Your task to perform on an android device: turn off javascript in the chrome app Image 0: 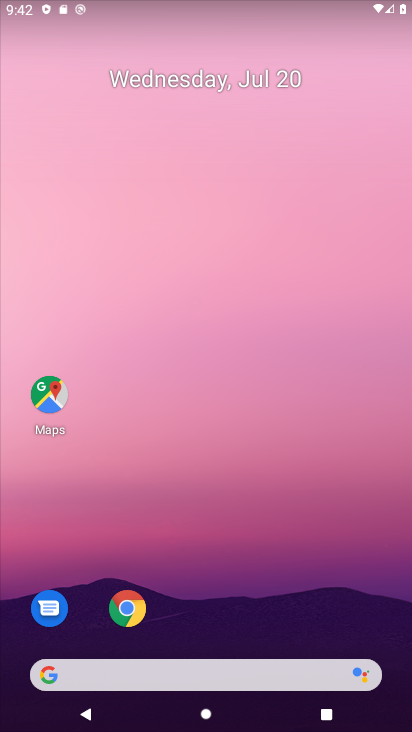
Step 0: click (208, 211)
Your task to perform on an android device: turn off javascript in the chrome app Image 1: 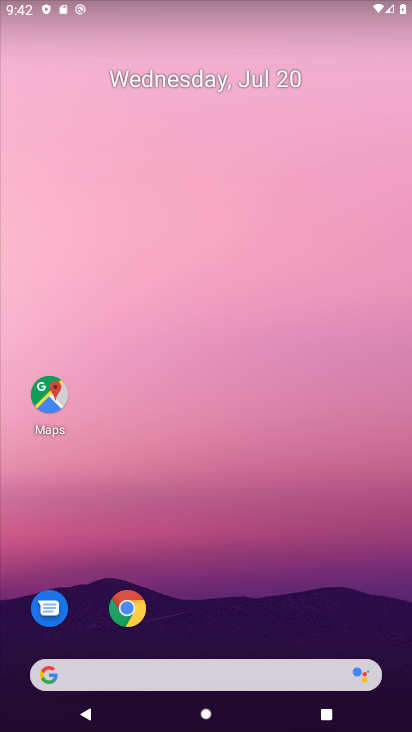
Step 1: drag from (267, 540) to (282, 146)
Your task to perform on an android device: turn off javascript in the chrome app Image 2: 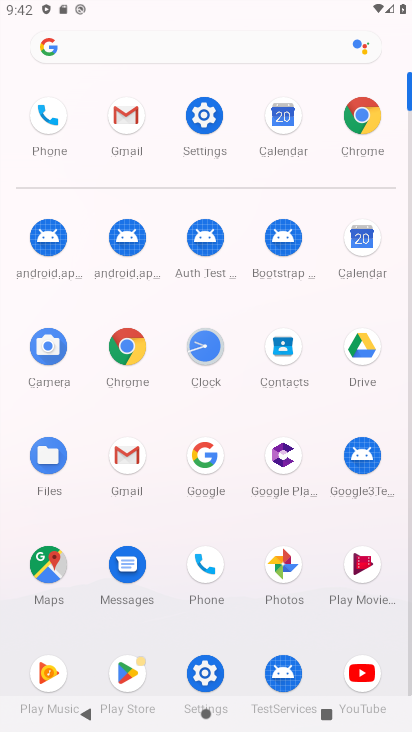
Step 2: click (359, 125)
Your task to perform on an android device: turn off javascript in the chrome app Image 3: 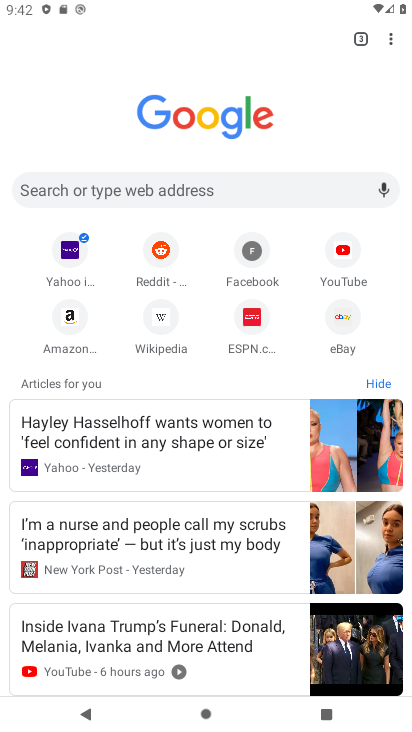
Step 3: drag from (384, 42) to (244, 325)
Your task to perform on an android device: turn off javascript in the chrome app Image 4: 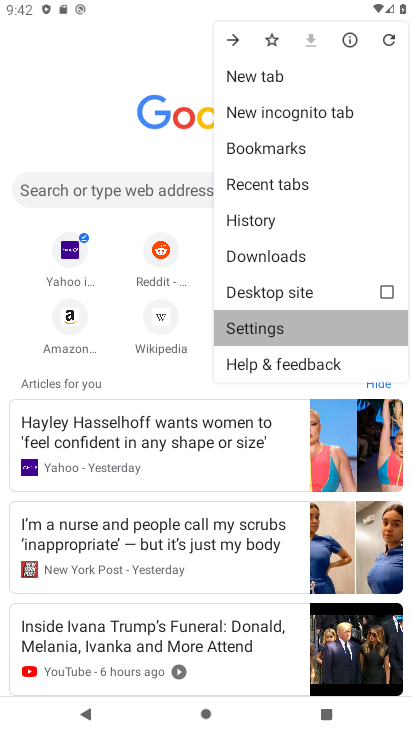
Step 4: click (244, 325)
Your task to perform on an android device: turn off javascript in the chrome app Image 5: 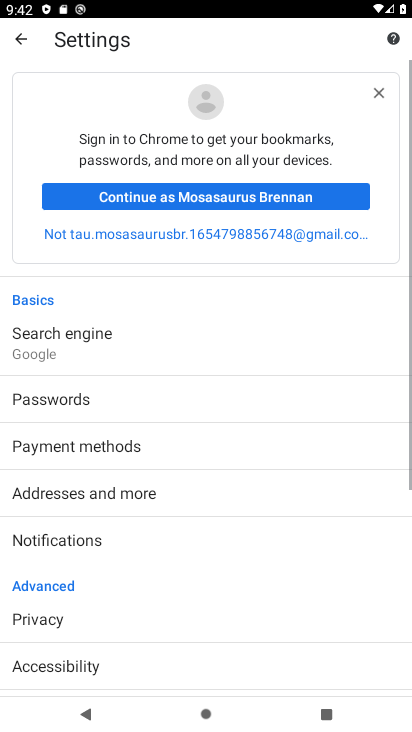
Step 5: drag from (193, 536) to (190, 254)
Your task to perform on an android device: turn off javascript in the chrome app Image 6: 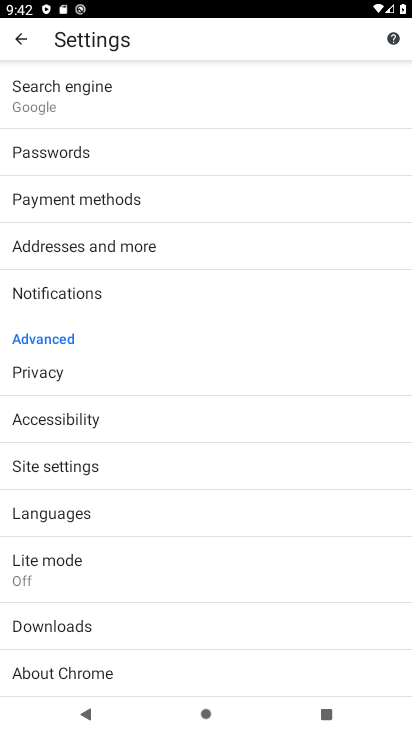
Step 6: click (53, 474)
Your task to perform on an android device: turn off javascript in the chrome app Image 7: 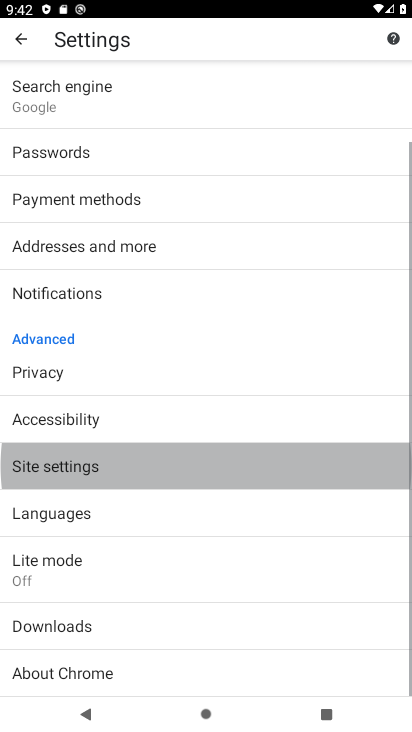
Step 7: click (60, 471)
Your task to perform on an android device: turn off javascript in the chrome app Image 8: 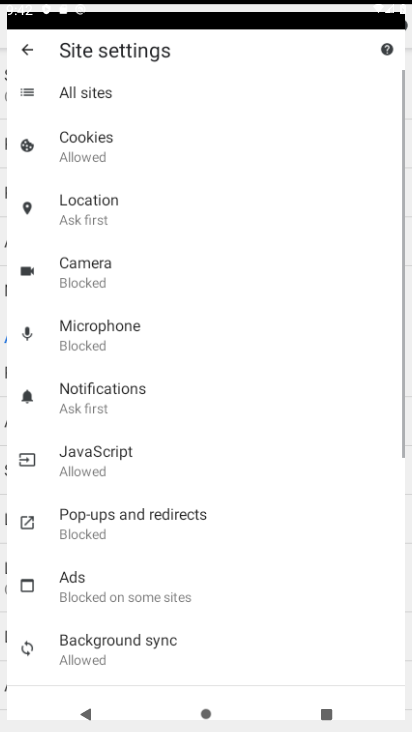
Step 8: click (66, 467)
Your task to perform on an android device: turn off javascript in the chrome app Image 9: 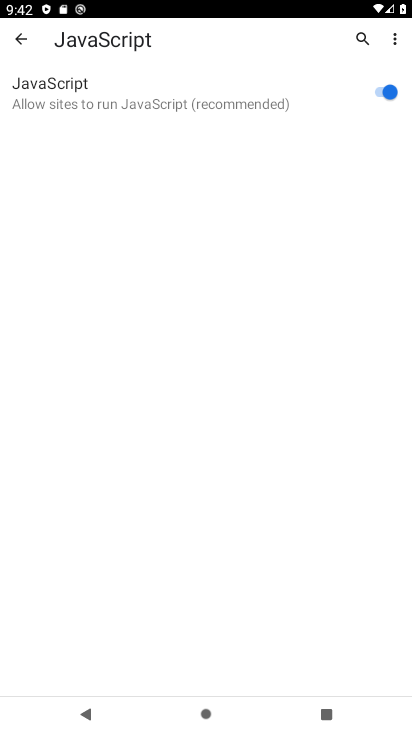
Step 9: click (389, 91)
Your task to perform on an android device: turn off javascript in the chrome app Image 10: 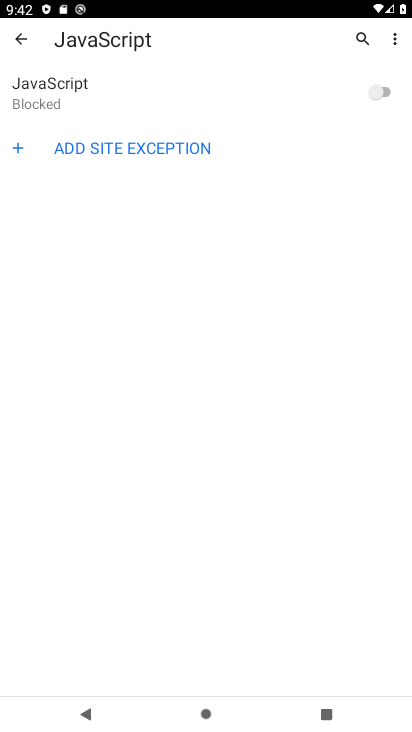
Step 10: task complete